Your task to perform on an android device: Open Chrome and go to the settings page Image 0: 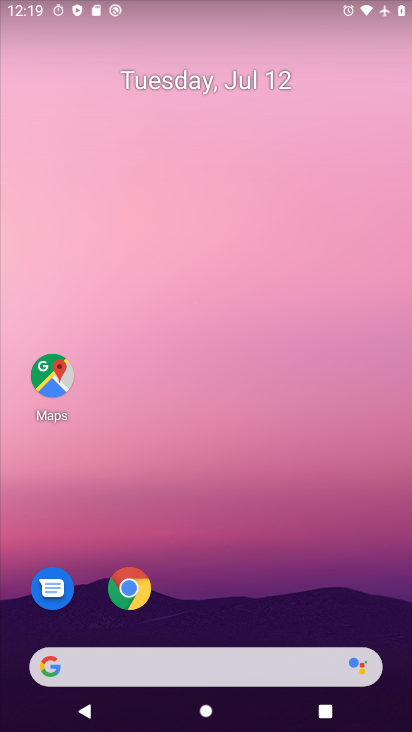
Step 0: press home button
Your task to perform on an android device: Open Chrome and go to the settings page Image 1: 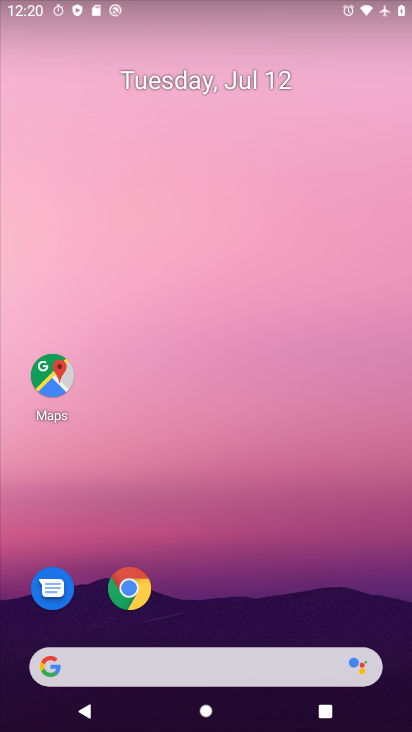
Step 1: click (131, 590)
Your task to perform on an android device: Open Chrome and go to the settings page Image 2: 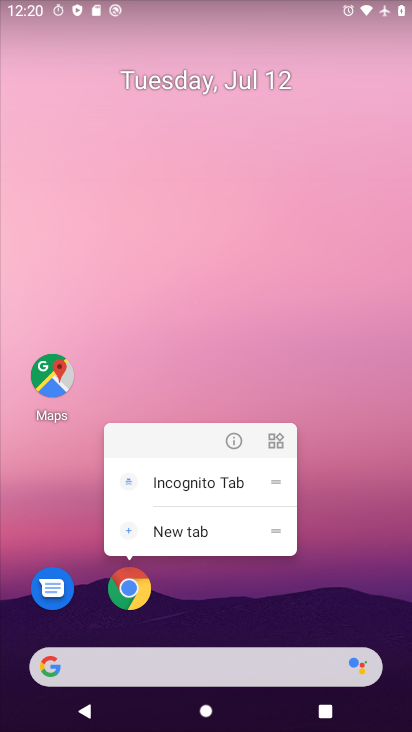
Step 2: click (131, 589)
Your task to perform on an android device: Open Chrome and go to the settings page Image 3: 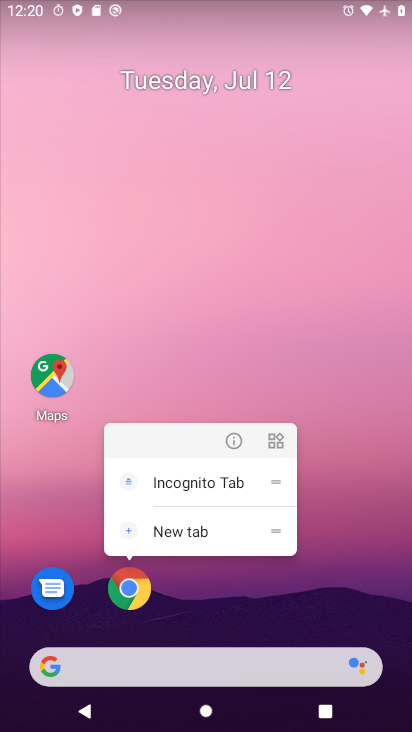
Step 3: click (132, 591)
Your task to perform on an android device: Open Chrome and go to the settings page Image 4: 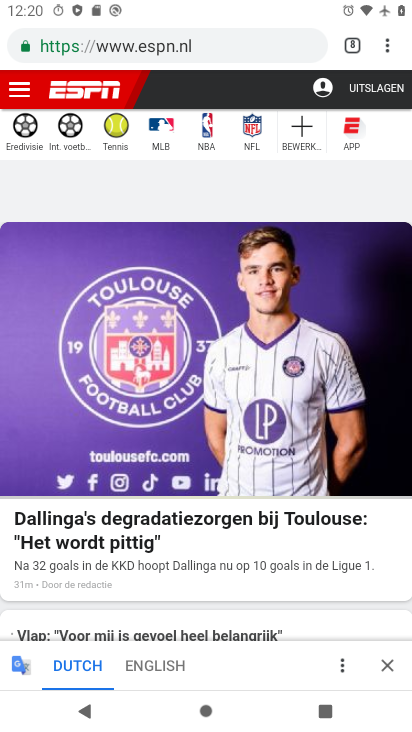
Step 4: task complete